Your task to perform on an android device: Show me productivity apps on the Play Store Image 0: 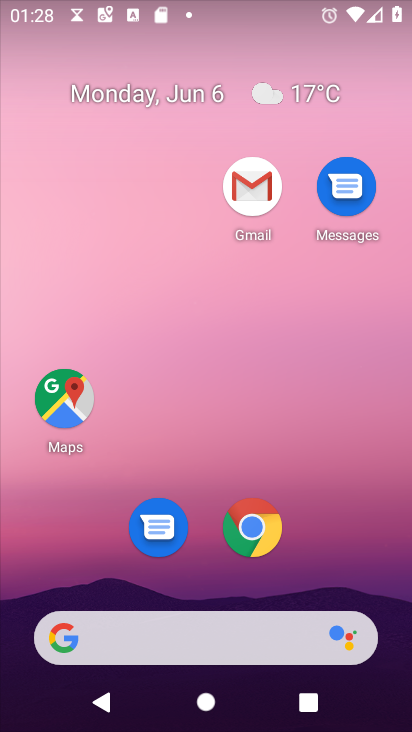
Step 0: drag from (311, 577) to (314, 192)
Your task to perform on an android device: Show me productivity apps on the Play Store Image 1: 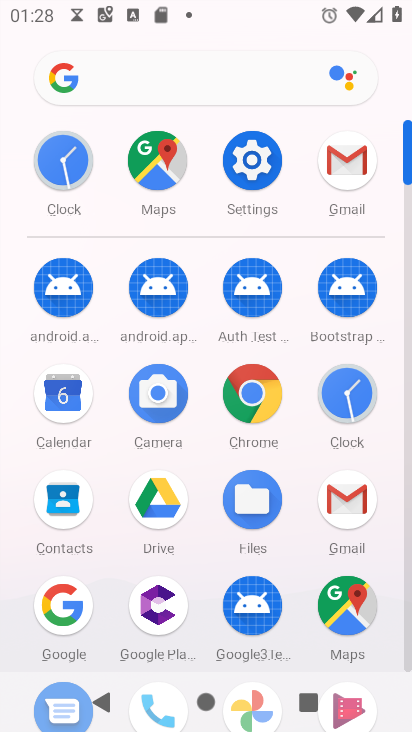
Step 1: drag from (201, 585) to (232, 264)
Your task to perform on an android device: Show me productivity apps on the Play Store Image 2: 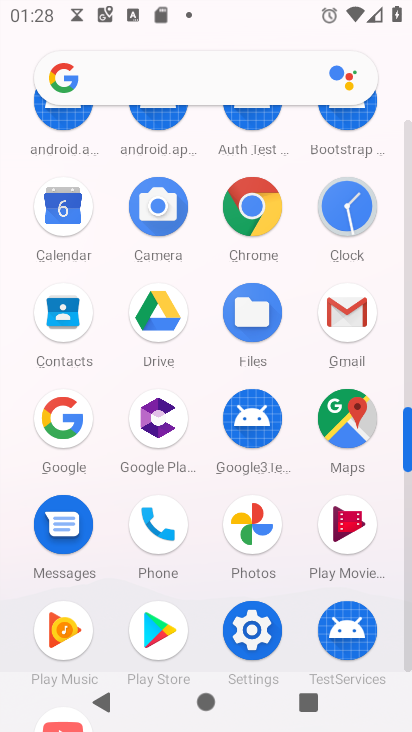
Step 2: click (157, 623)
Your task to perform on an android device: Show me productivity apps on the Play Store Image 3: 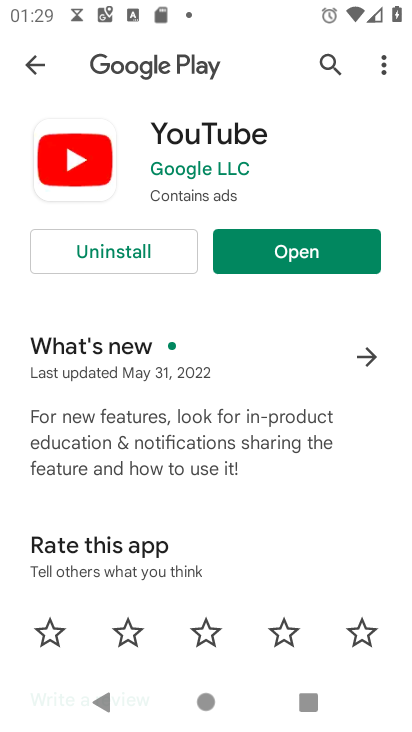
Step 3: click (36, 65)
Your task to perform on an android device: Show me productivity apps on the Play Store Image 4: 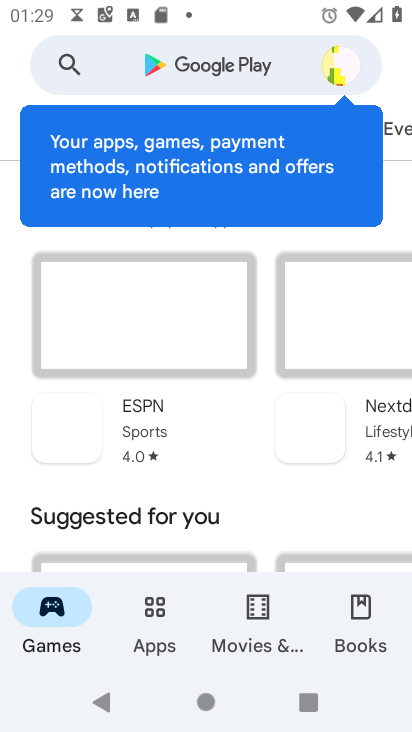
Step 4: click (97, 62)
Your task to perform on an android device: Show me productivity apps on the Play Store Image 5: 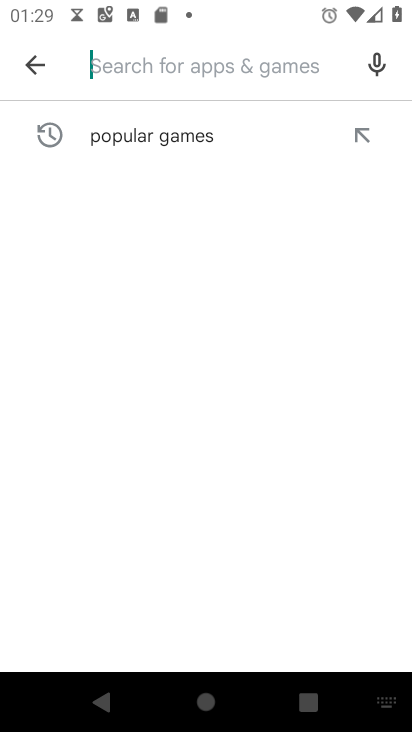
Step 5: type "productivity apps"
Your task to perform on an android device: Show me productivity apps on the Play Store Image 6: 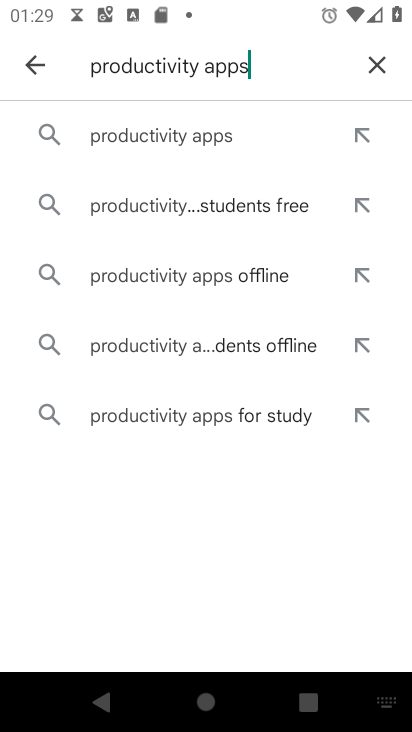
Step 6: click (259, 138)
Your task to perform on an android device: Show me productivity apps on the Play Store Image 7: 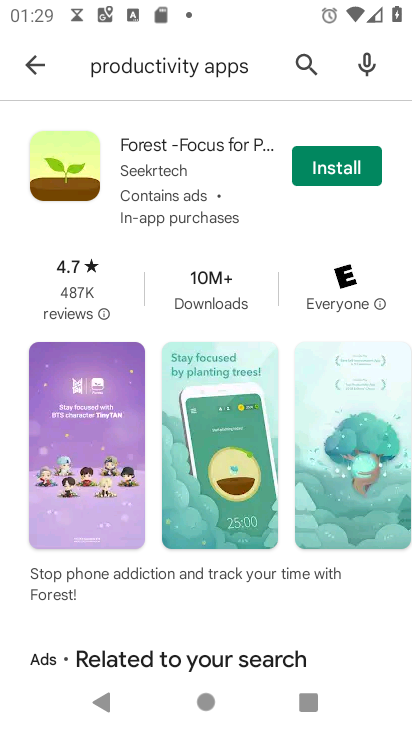
Step 7: task complete